Your task to perform on an android device: Open internet settings Image 0: 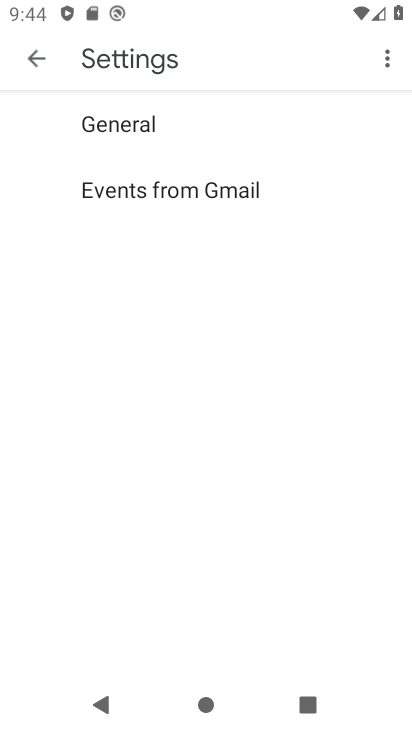
Step 0: press home button
Your task to perform on an android device: Open internet settings Image 1: 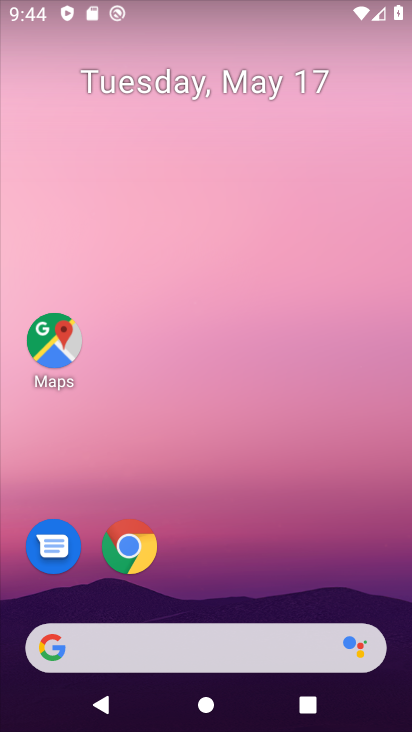
Step 1: drag from (176, 522) to (165, 456)
Your task to perform on an android device: Open internet settings Image 2: 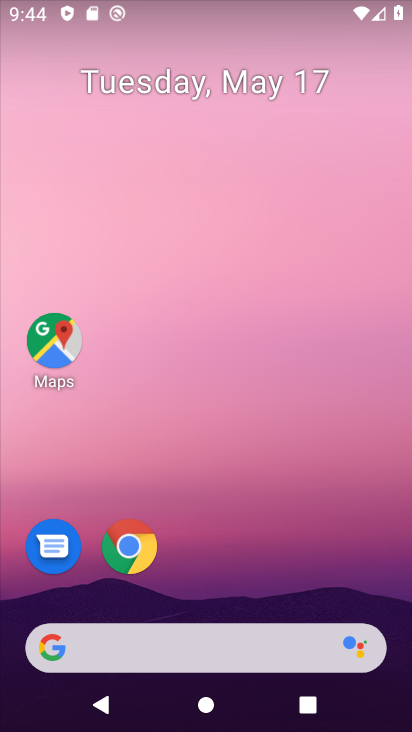
Step 2: drag from (248, 585) to (255, 133)
Your task to perform on an android device: Open internet settings Image 3: 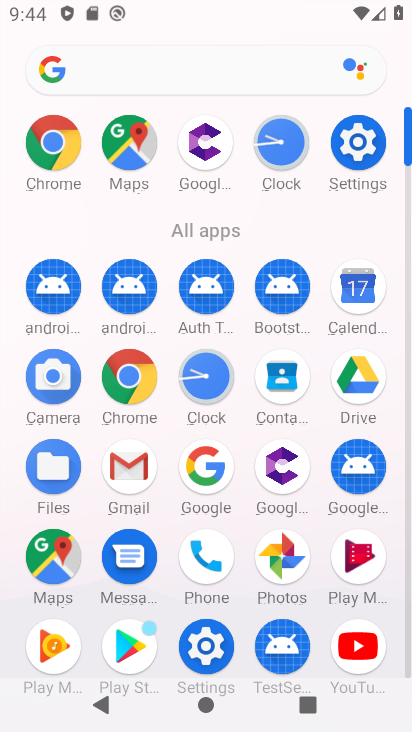
Step 3: click (346, 140)
Your task to perform on an android device: Open internet settings Image 4: 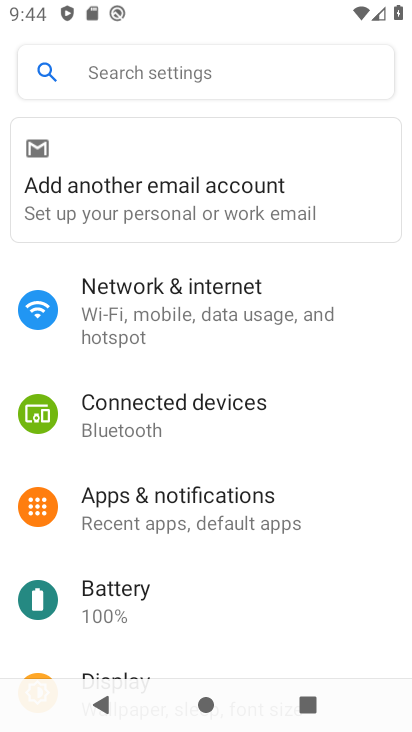
Step 4: click (182, 306)
Your task to perform on an android device: Open internet settings Image 5: 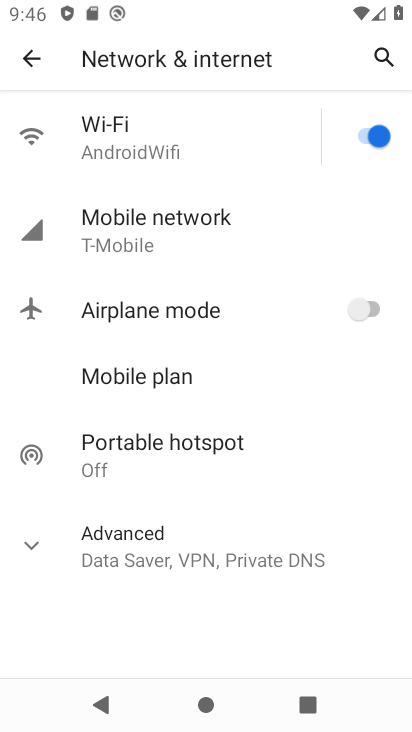
Step 5: task complete